Your task to perform on an android device: open chrome privacy settings Image 0: 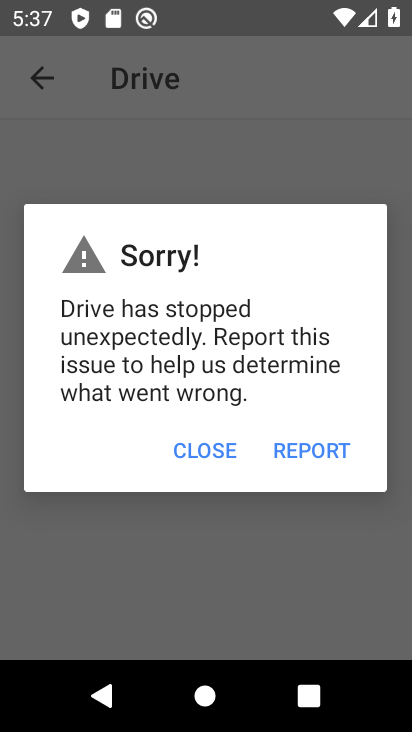
Step 0: press home button
Your task to perform on an android device: open chrome privacy settings Image 1: 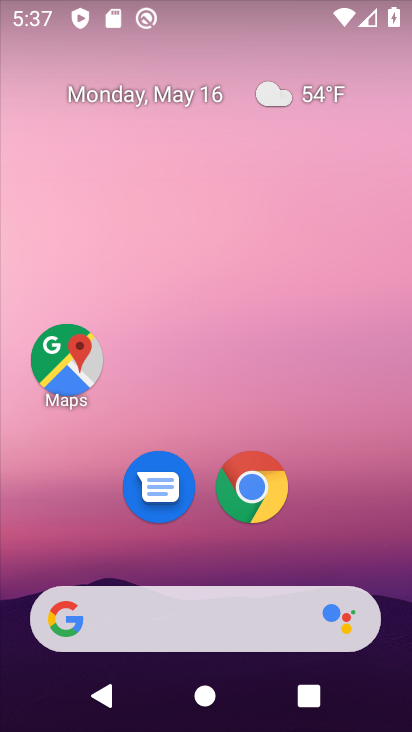
Step 1: click (255, 486)
Your task to perform on an android device: open chrome privacy settings Image 2: 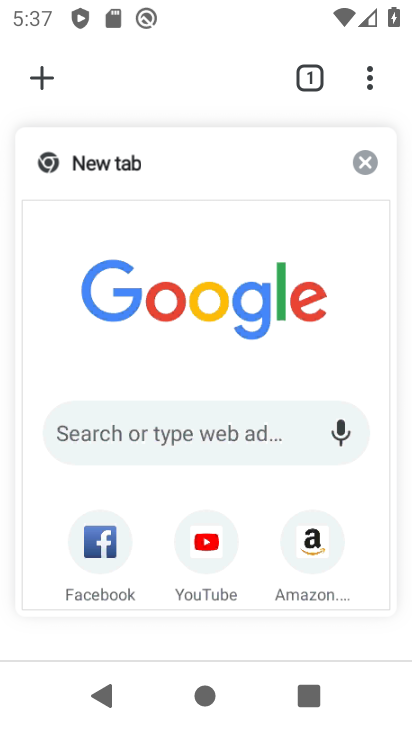
Step 2: click (365, 81)
Your task to perform on an android device: open chrome privacy settings Image 3: 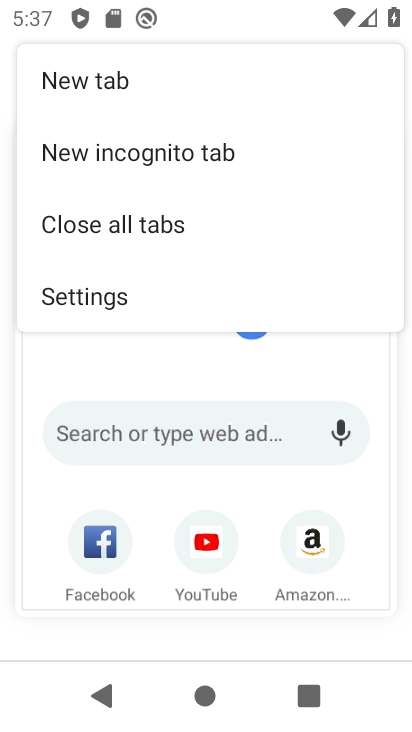
Step 3: click (114, 297)
Your task to perform on an android device: open chrome privacy settings Image 4: 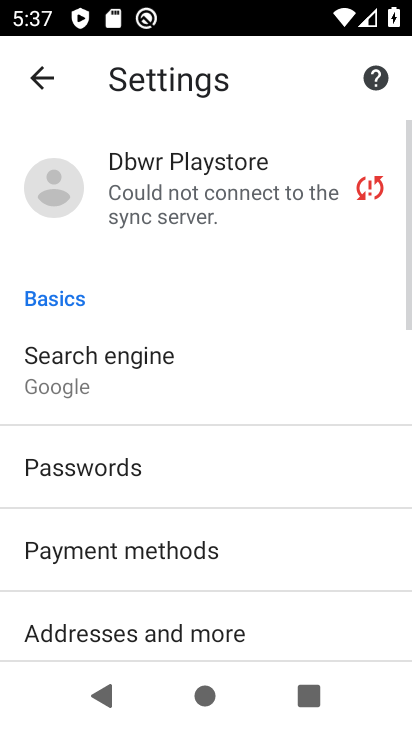
Step 4: drag from (139, 623) to (100, 242)
Your task to perform on an android device: open chrome privacy settings Image 5: 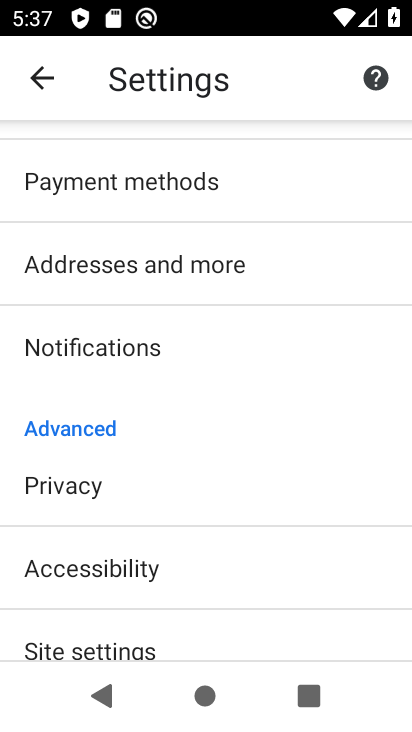
Step 5: click (97, 483)
Your task to perform on an android device: open chrome privacy settings Image 6: 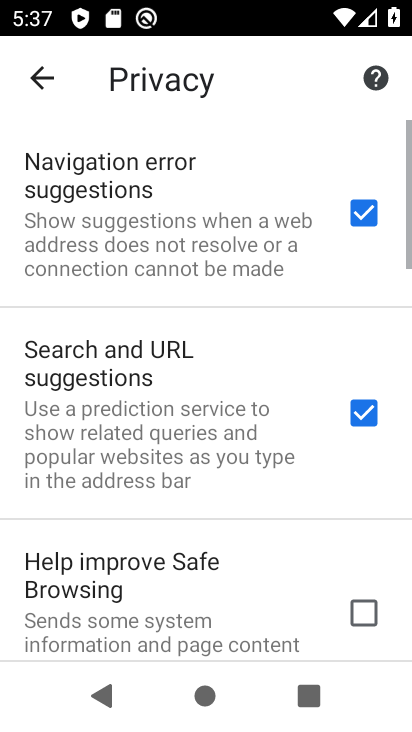
Step 6: task complete